Your task to perform on an android device: Set the phone to "Do not disturb". Image 0: 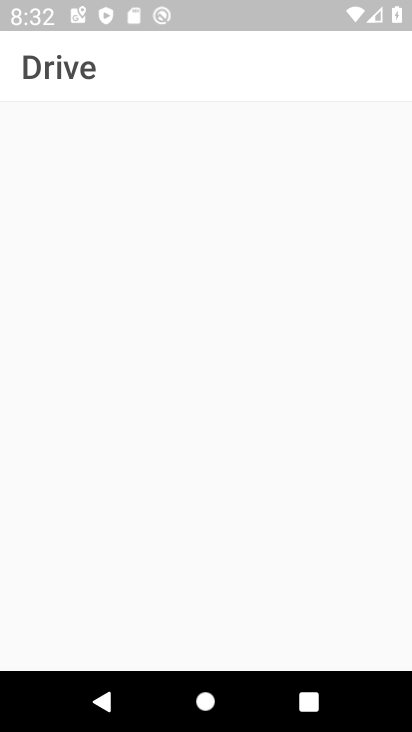
Step 0: press home button
Your task to perform on an android device: Set the phone to "Do not disturb". Image 1: 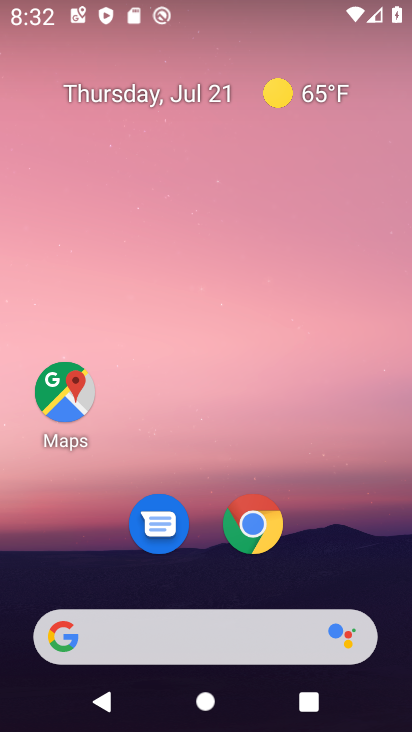
Step 1: drag from (213, 621) to (233, 141)
Your task to perform on an android device: Set the phone to "Do not disturb". Image 2: 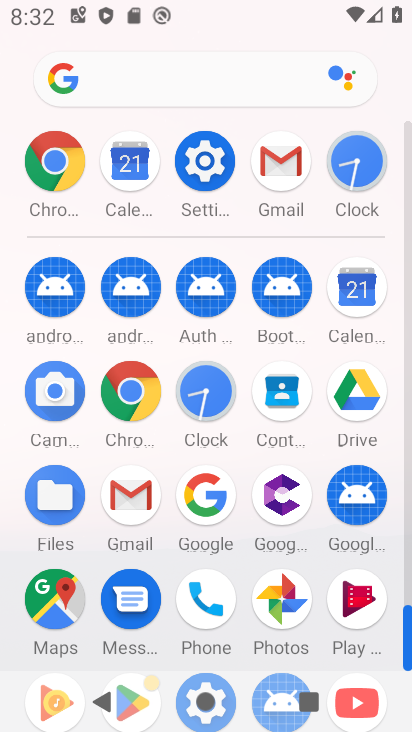
Step 2: click (191, 185)
Your task to perform on an android device: Set the phone to "Do not disturb". Image 3: 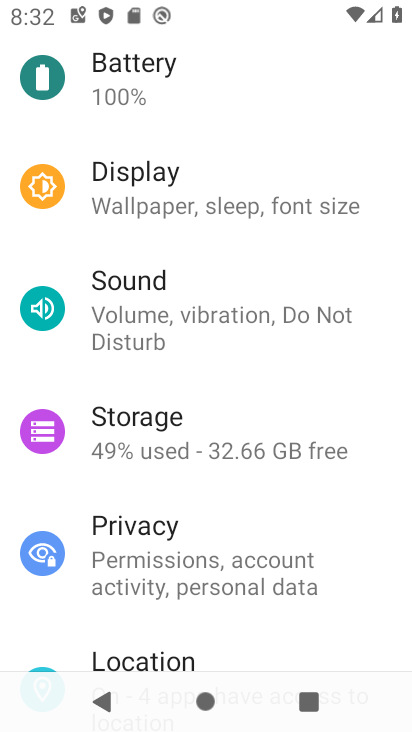
Step 3: click (144, 288)
Your task to perform on an android device: Set the phone to "Do not disturb". Image 4: 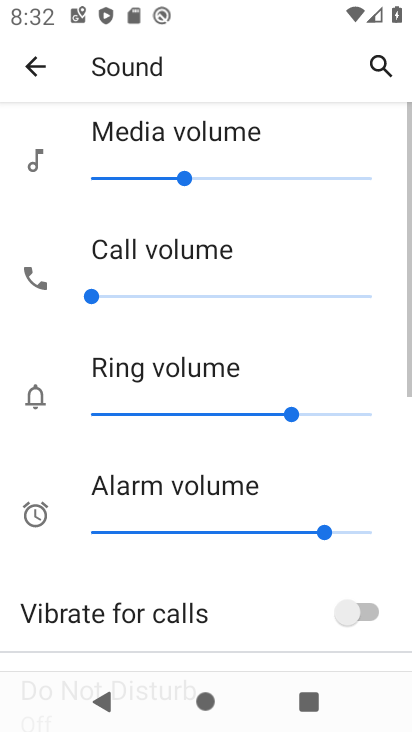
Step 4: drag from (159, 632) to (173, 174)
Your task to perform on an android device: Set the phone to "Do not disturb". Image 5: 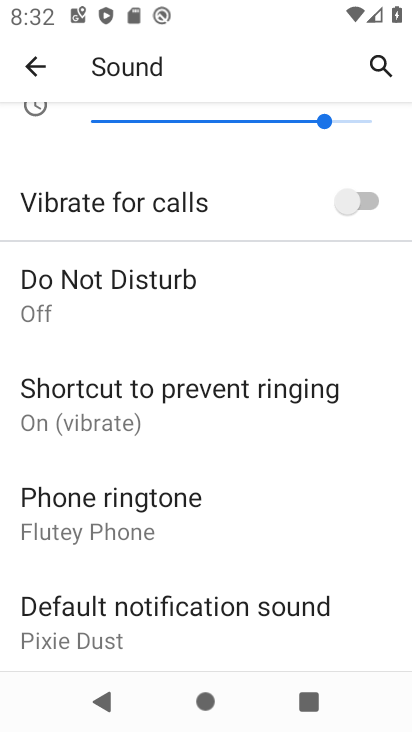
Step 5: click (98, 283)
Your task to perform on an android device: Set the phone to "Do not disturb". Image 6: 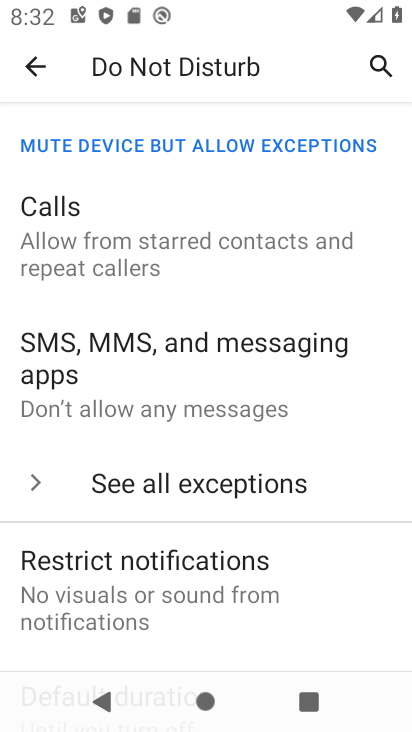
Step 6: drag from (283, 541) to (308, 131)
Your task to perform on an android device: Set the phone to "Do not disturb". Image 7: 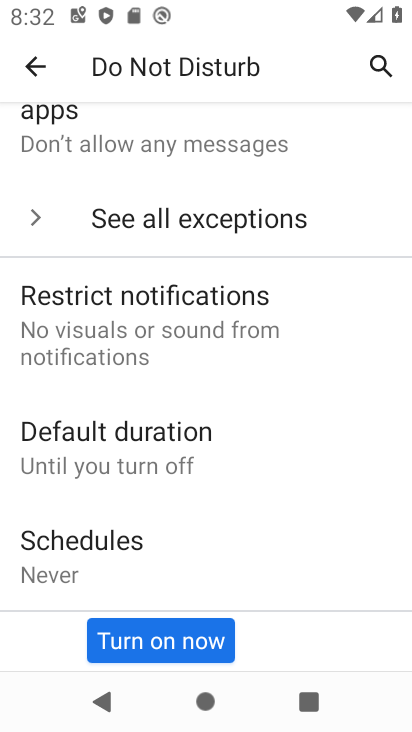
Step 7: click (155, 637)
Your task to perform on an android device: Set the phone to "Do not disturb". Image 8: 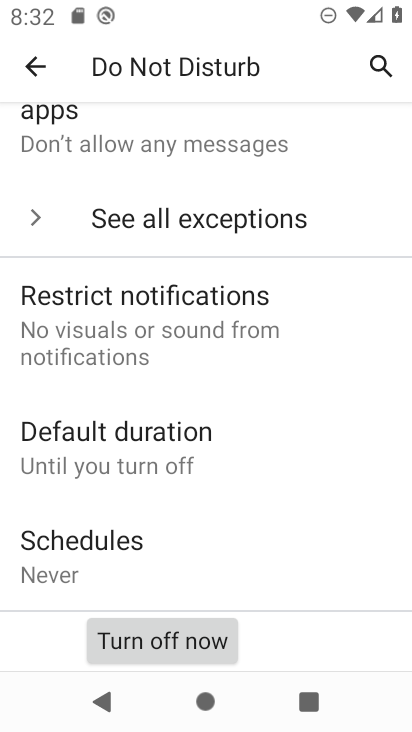
Step 8: task complete